Your task to perform on an android device: manage bookmarks in the chrome app Image 0: 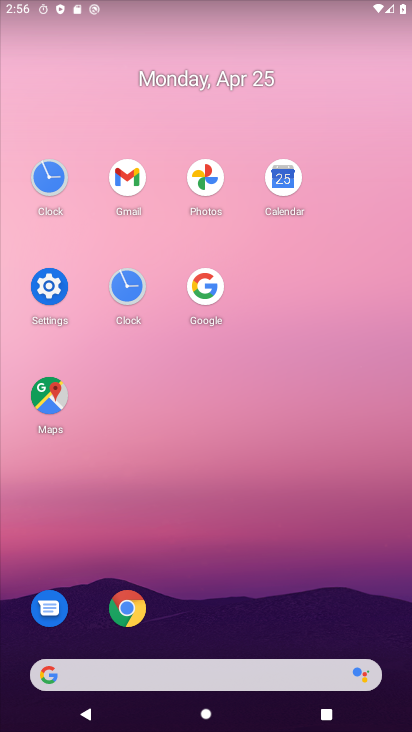
Step 0: click (145, 605)
Your task to perform on an android device: manage bookmarks in the chrome app Image 1: 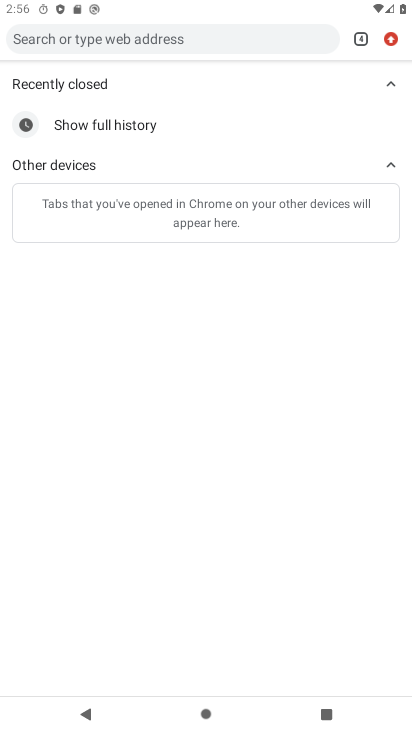
Step 1: click (386, 28)
Your task to perform on an android device: manage bookmarks in the chrome app Image 2: 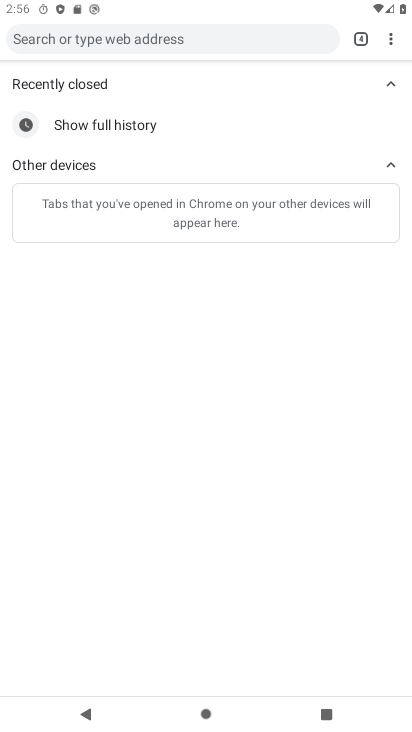
Step 2: click (390, 36)
Your task to perform on an android device: manage bookmarks in the chrome app Image 3: 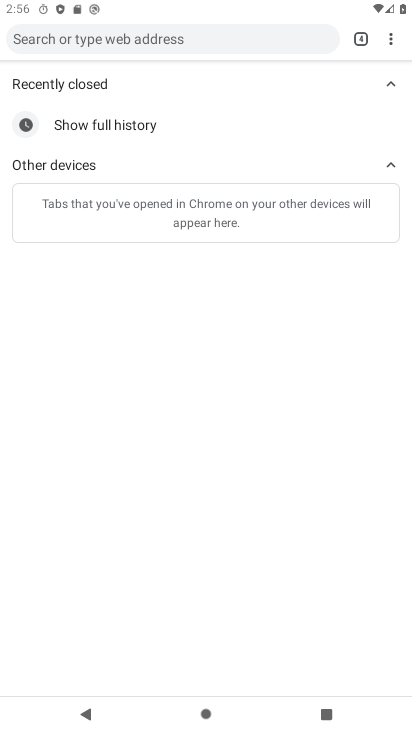
Step 3: click (393, 44)
Your task to perform on an android device: manage bookmarks in the chrome app Image 4: 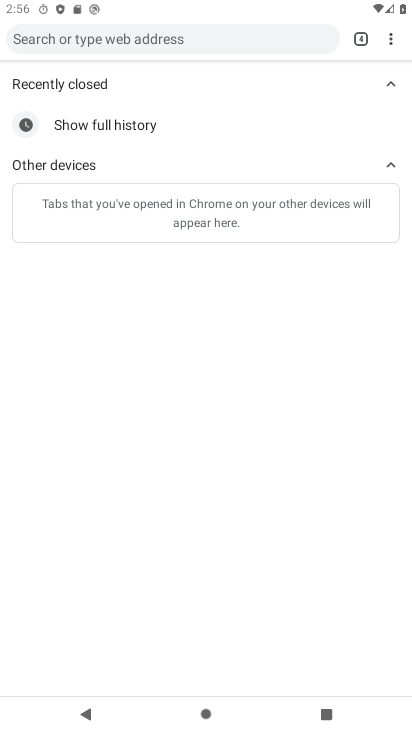
Step 4: click (387, 43)
Your task to perform on an android device: manage bookmarks in the chrome app Image 5: 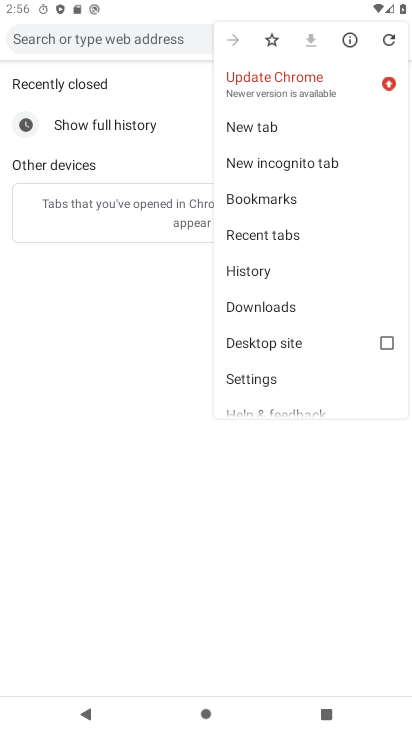
Step 5: click (280, 197)
Your task to perform on an android device: manage bookmarks in the chrome app Image 6: 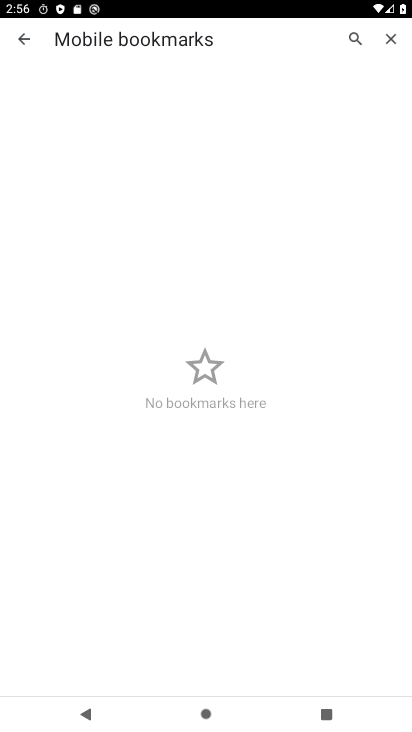
Step 6: task complete